Your task to perform on an android device: Open ESPN.com Image 0: 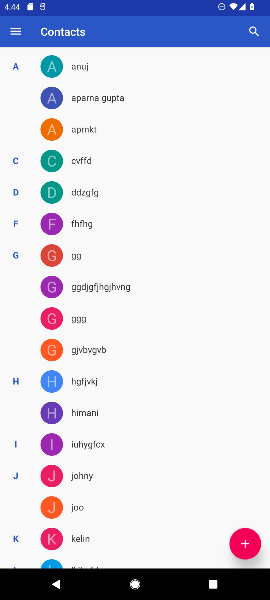
Step 0: press home button
Your task to perform on an android device: Open ESPN.com Image 1: 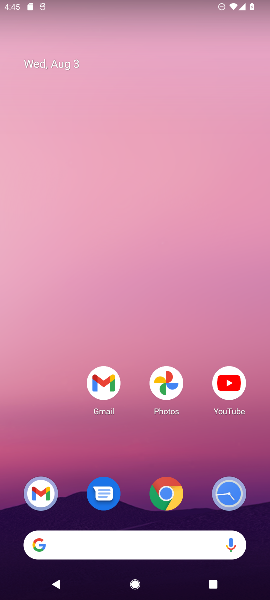
Step 1: drag from (55, 445) to (75, 153)
Your task to perform on an android device: Open ESPN.com Image 2: 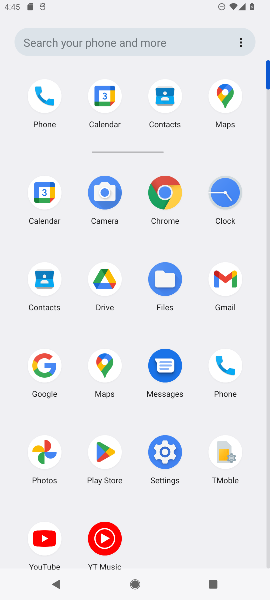
Step 2: click (170, 187)
Your task to perform on an android device: Open ESPN.com Image 3: 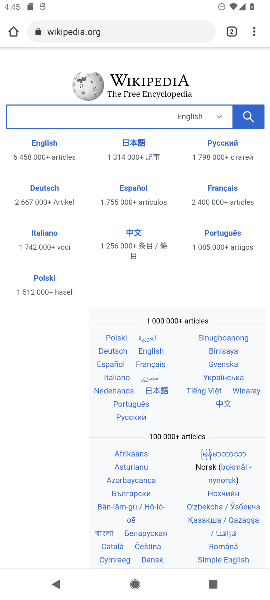
Step 3: click (172, 30)
Your task to perform on an android device: Open ESPN.com Image 4: 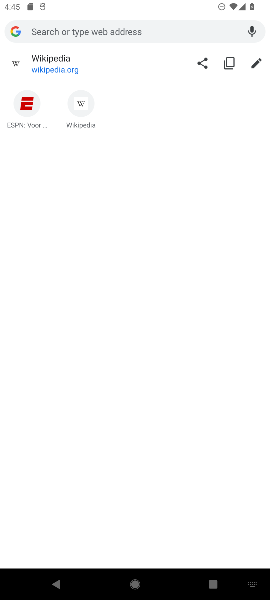
Step 4: type "espn.com"
Your task to perform on an android device: Open ESPN.com Image 5: 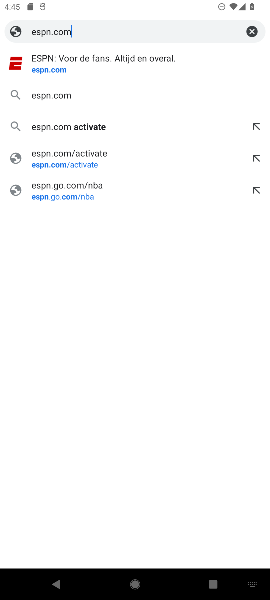
Step 5: click (132, 67)
Your task to perform on an android device: Open ESPN.com Image 6: 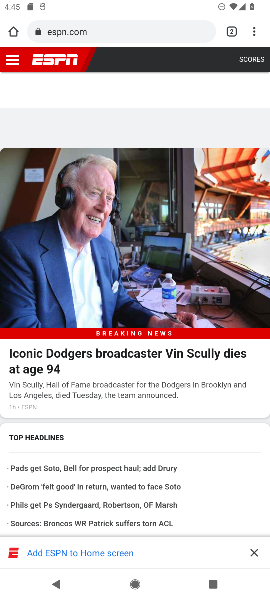
Step 6: task complete